Your task to perform on an android device: change text size in settings app Image 0: 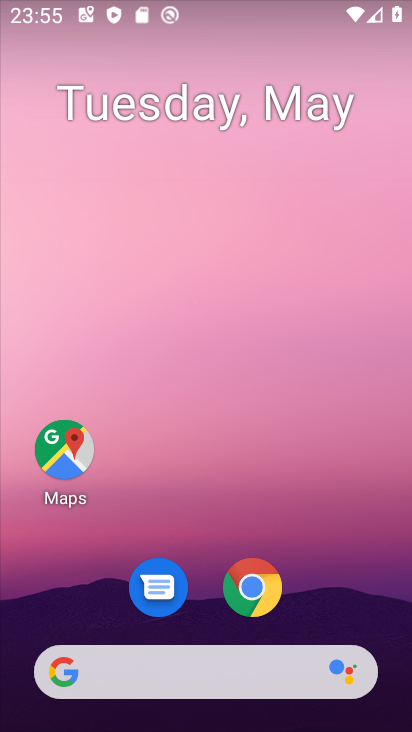
Step 0: drag from (321, 609) to (256, 32)
Your task to perform on an android device: change text size in settings app Image 1: 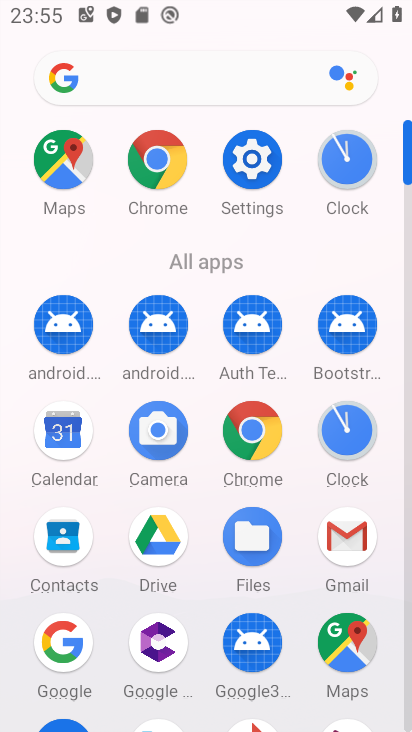
Step 1: click (239, 161)
Your task to perform on an android device: change text size in settings app Image 2: 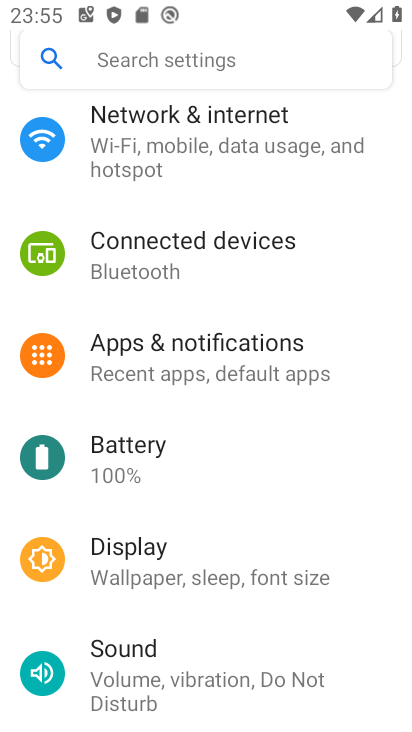
Step 2: drag from (229, 611) to (218, 189)
Your task to perform on an android device: change text size in settings app Image 3: 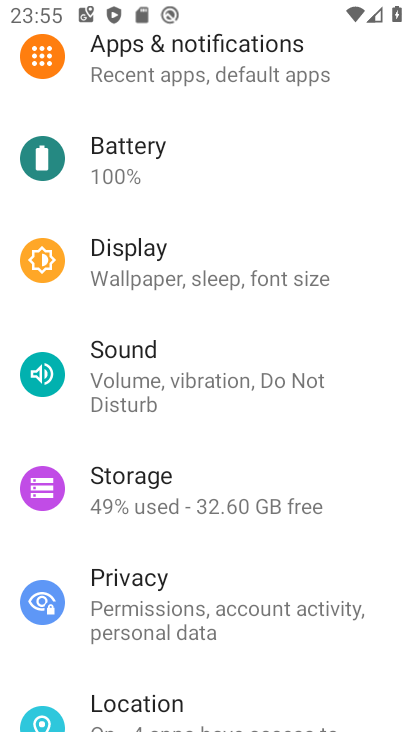
Step 3: click (221, 279)
Your task to perform on an android device: change text size in settings app Image 4: 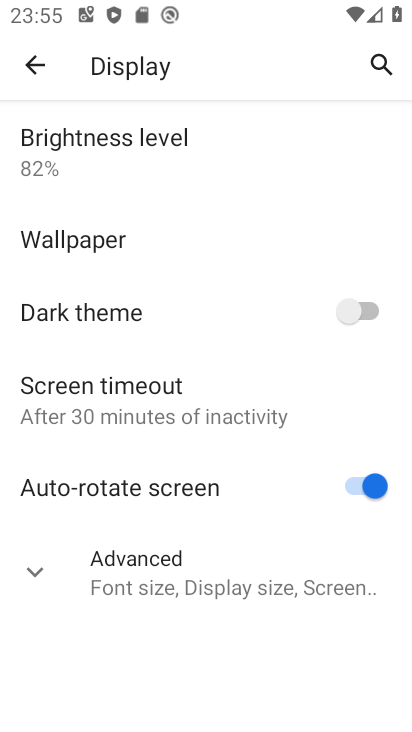
Step 4: click (96, 556)
Your task to perform on an android device: change text size in settings app Image 5: 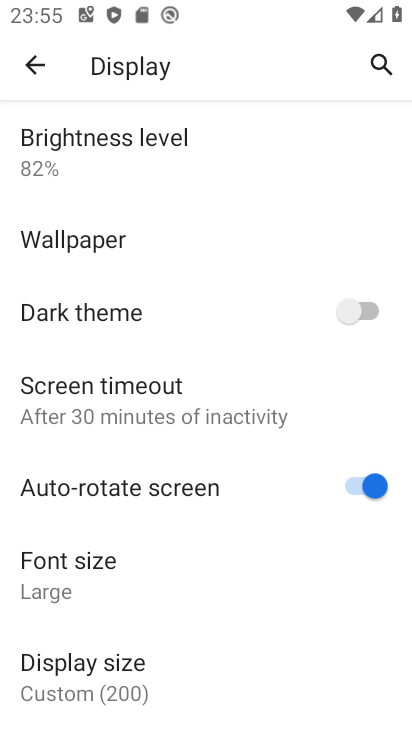
Step 5: click (41, 557)
Your task to perform on an android device: change text size in settings app Image 6: 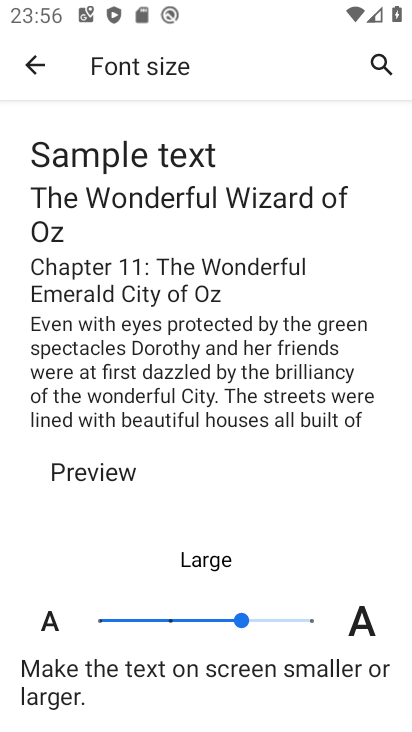
Step 6: click (161, 625)
Your task to perform on an android device: change text size in settings app Image 7: 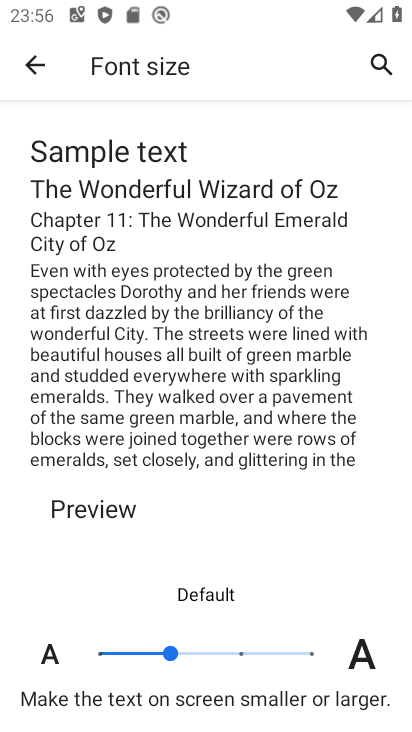
Step 7: task complete